Your task to perform on an android device: Open Youtube and go to the subscriptions tab Image 0: 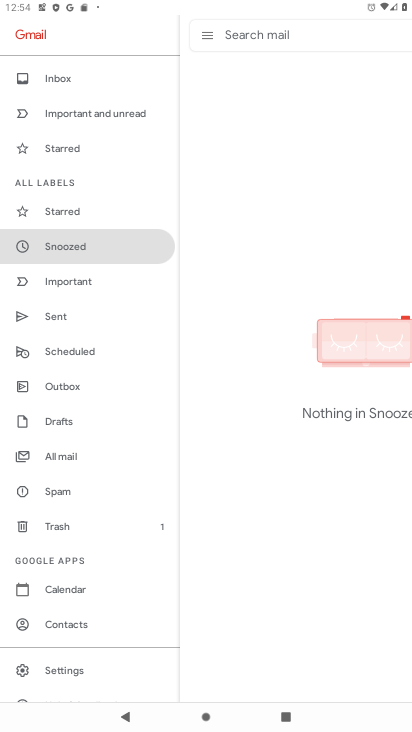
Step 0: press home button
Your task to perform on an android device: Open Youtube and go to the subscriptions tab Image 1: 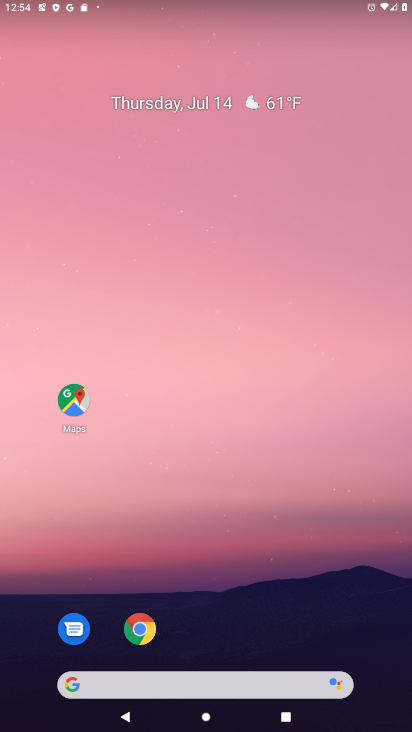
Step 1: drag from (267, 612) to (346, 103)
Your task to perform on an android device: Open Youtube and go to the subscriptions tab Image 2: 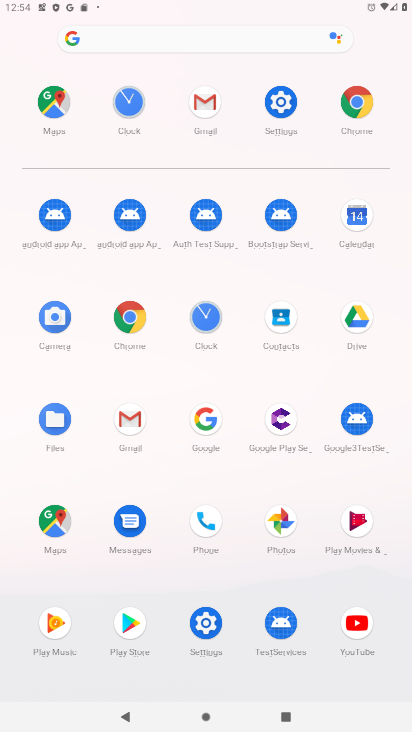
Step 2: click (345, 624)
Your task to perform on an android device: Open Youtube and go to the subscriptions tab Image 3: 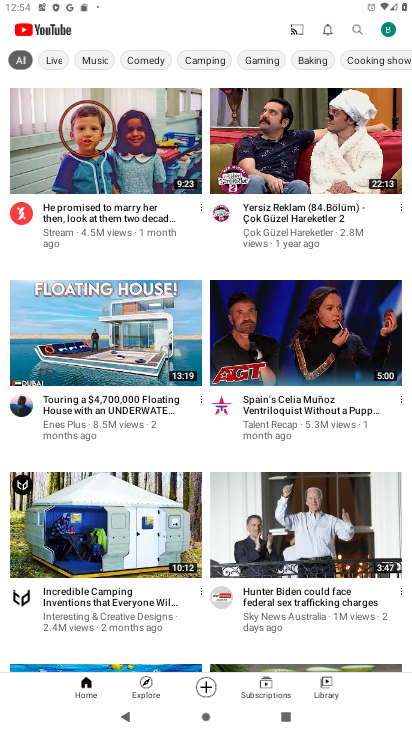
Step 3: click (266, 694)
Your task to perform on an android device: Open Youtube and go to the subscriptions tab Image 4: 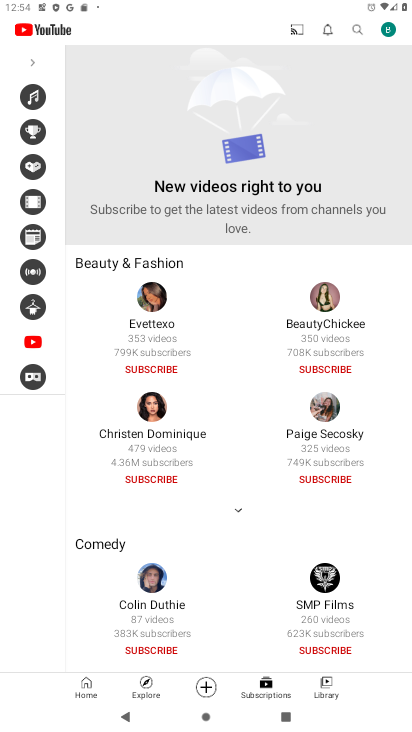
Step 4: task complete